Your task to perform on an android device: see tabs open on other devices in the chrome app Image 0: 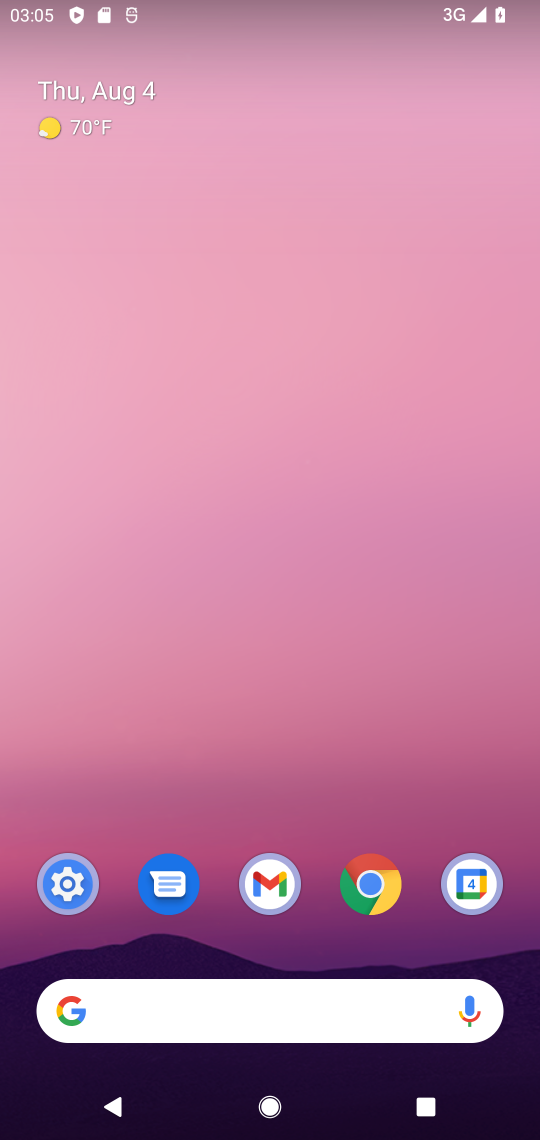
Step 0: press home button
Your task to perform on an android device: see tabs open on other devices in the chrome app Image 1: 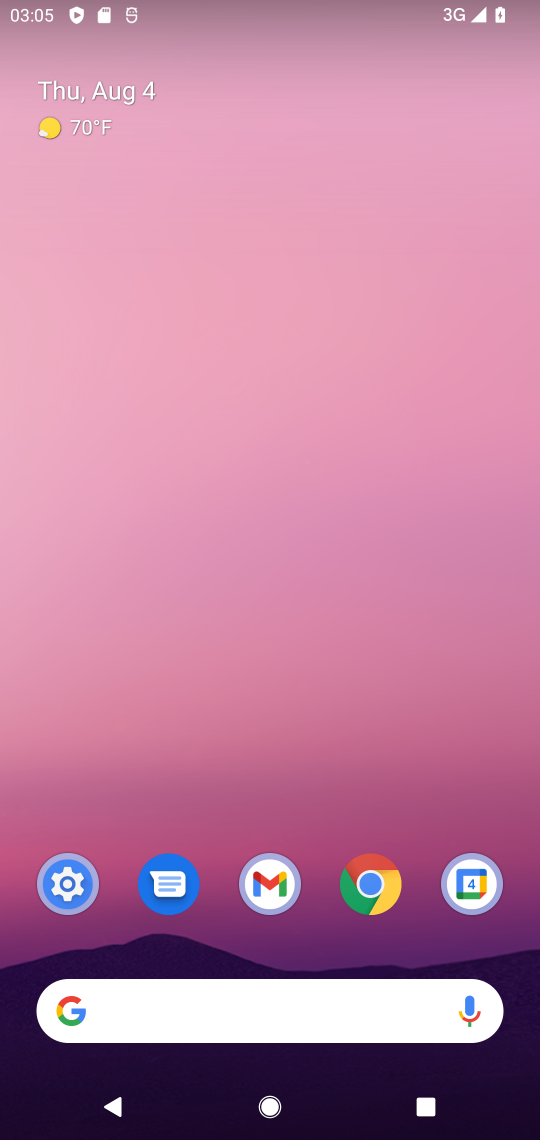
Step 1: drag from (318, 786) to (376, 301)
Your task to perform on an android device: see tabs open on other devices in the chrome app Image 2: 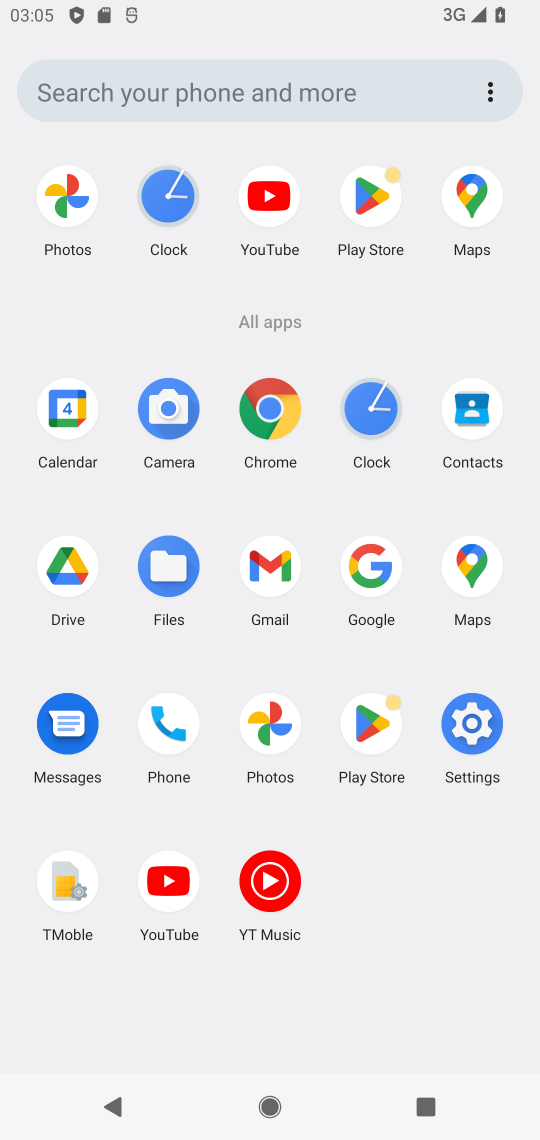
Step 2: click (259, 420)
Your task to perform on an android device: see tabs open on other devices in the chrome app Image 3: 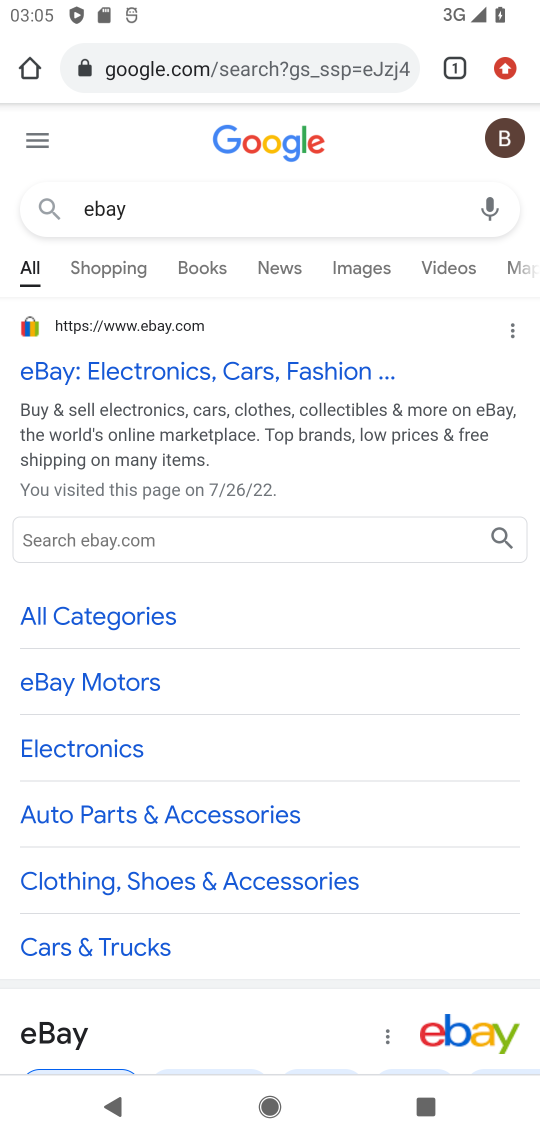
Step 3: click (505, 64)
Your task to perform on an android device: see tabs open on other devices in the chrome app Image 4: 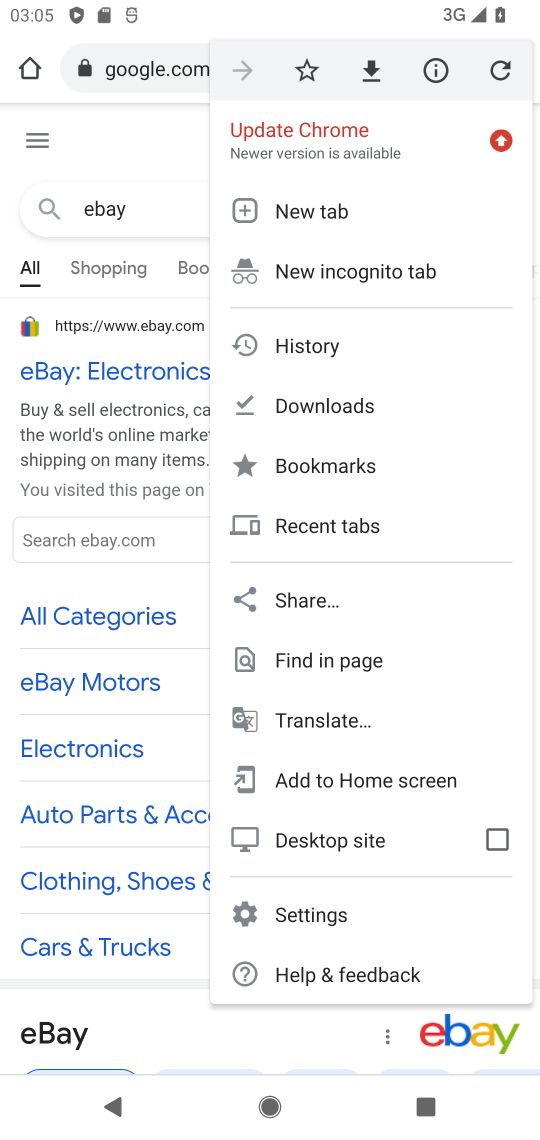
Step 4: click (384, 530)
Your task to perform on an android device: see tabs open on other devices in the chrome app Image 5: 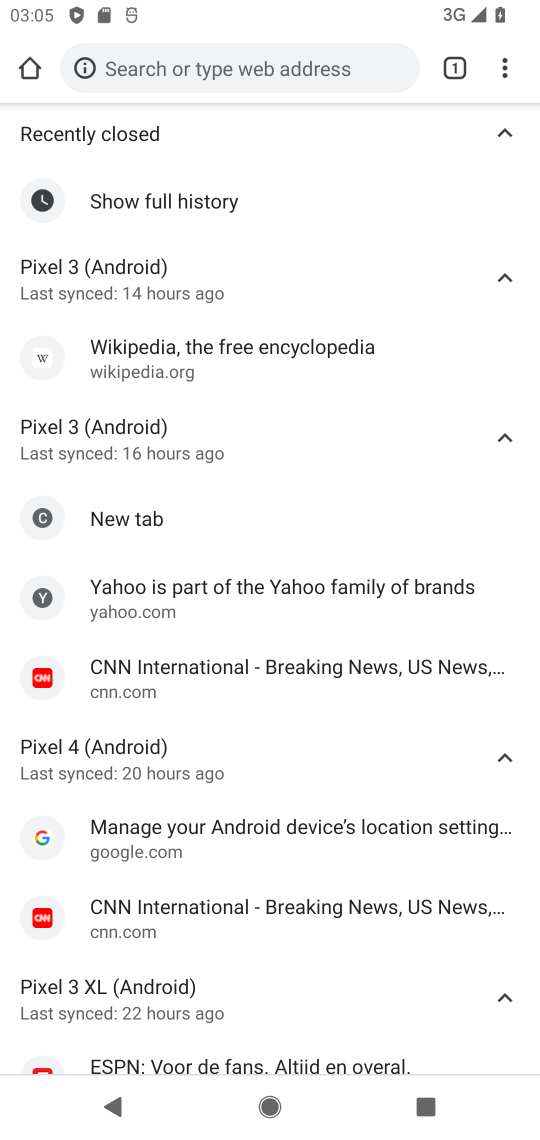
Step 5: click (453, 66)
Your task to perform on an android device: see tabs open on other devices in the chrome app Image 6: 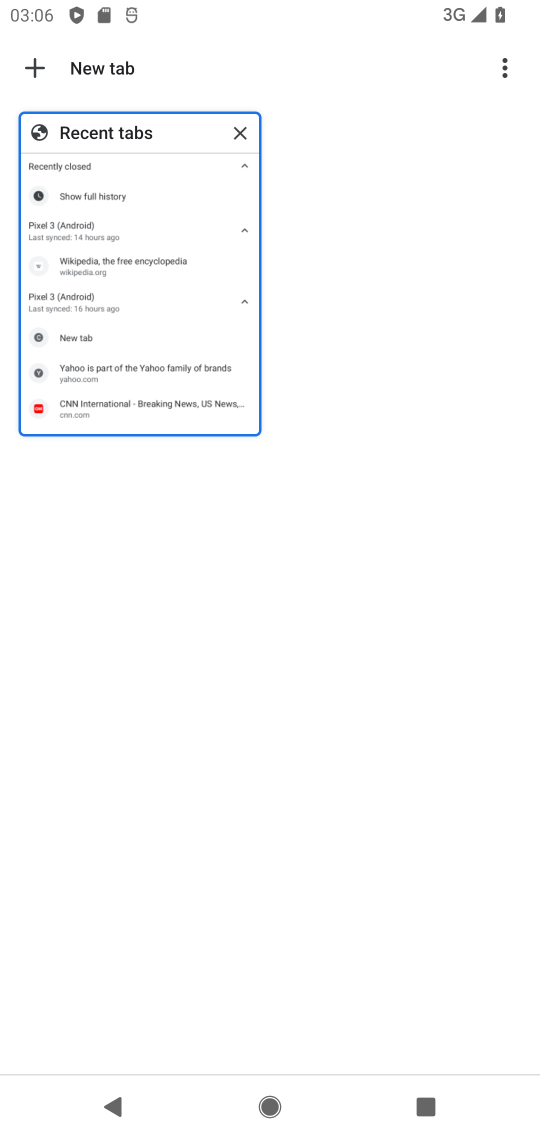
Step 6: task complete